Your task to perform on an android device: Do I have any events today? Image 0: 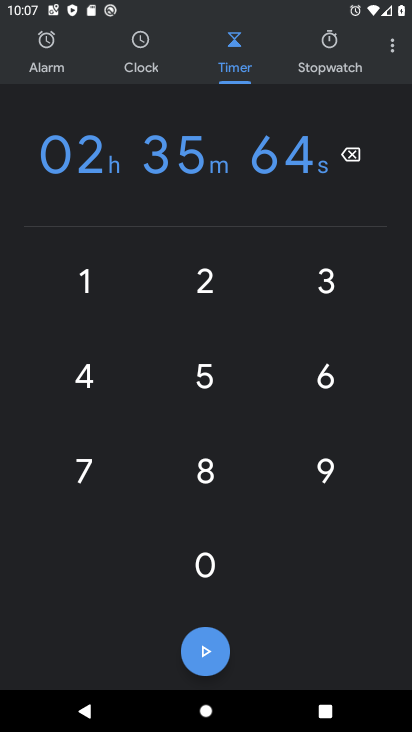
Step 0: press back button
Your task to perform on an android device: Do I have any events today? Image 1: 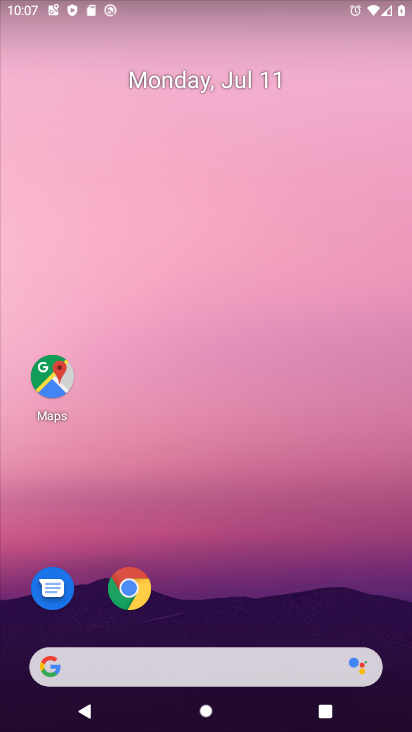
Step 1: drag from (221, 604) to (213, 7)
Your task to perform on an android device: Do I have any events today? Image 2: 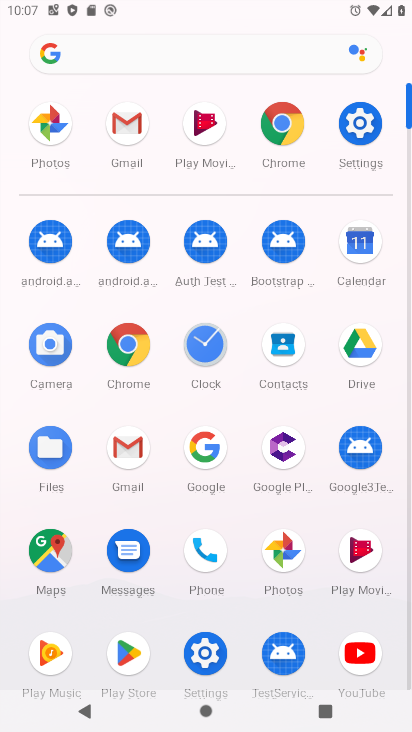
Step 2: click (362, 235)
Your task to perform on an android device: Do I have any events today? Image 3: 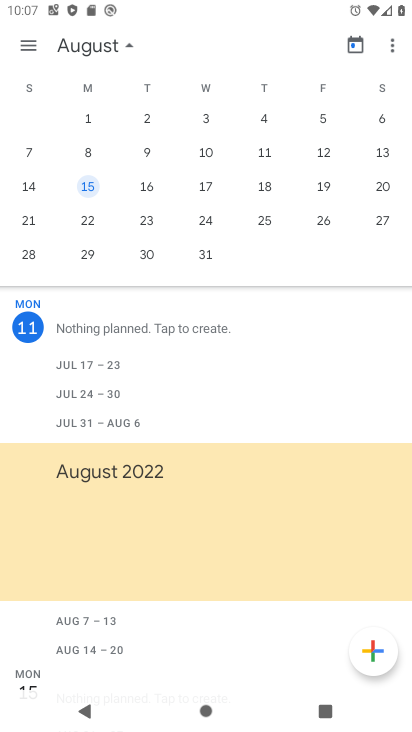
Step 3: drag from (36, 165) to (376, 175)
Your task to perform on an android device: Do I have any events today? Image 4: 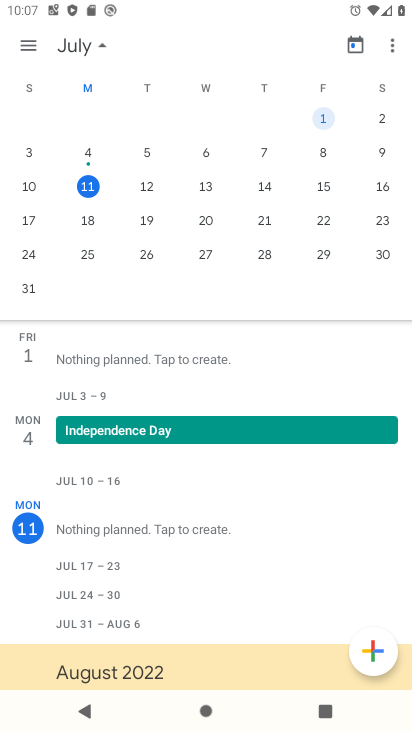
Step 4: click (94, 182)
Your task to perform on an android device: Do I have any events today? Image 5: 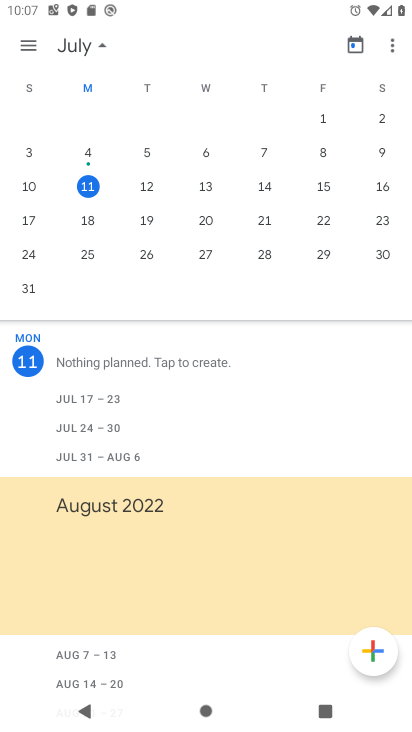
Step 5: click (147, 181)
Your task to perform on an android device: Do I have any events today? Image 6: 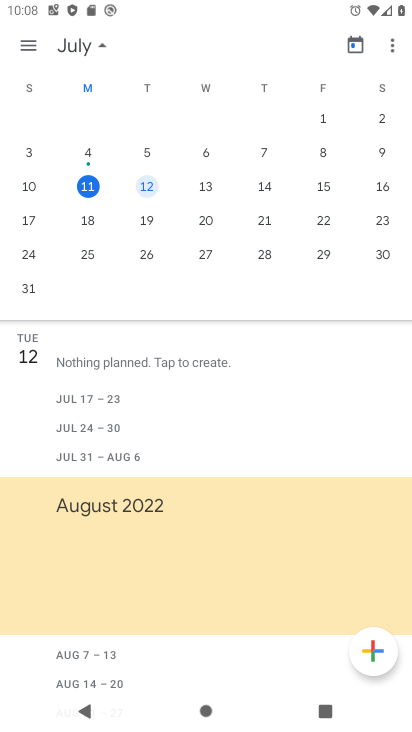
Step 6: task complete